Your task to perform on an android device: toggle notifications settings in the gmail app Image 0: 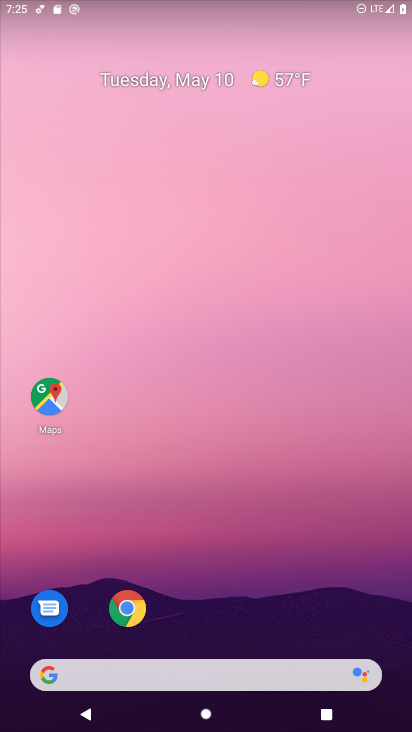
Step 0: drag from (307, 606) to (303, 104)
Your task to perform on an android device: toggle notifications settings in the gmail app Image 1: 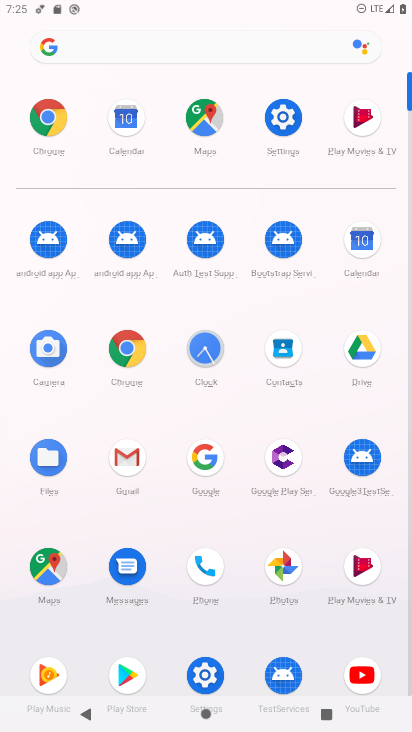
Step 1: click (129, 457)
Your task to perform on an android device: toggle notifications settings in the gmail app Image 2: 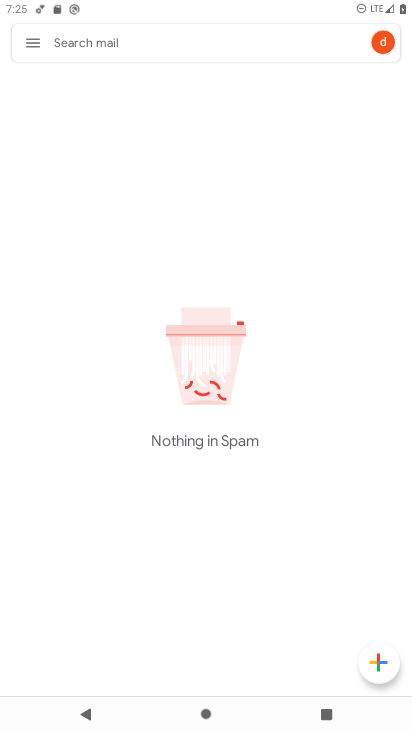
Step 2: click (21, 36)
Your task to perform on an android device: toggle notifications settings in the gmail app Image 3: 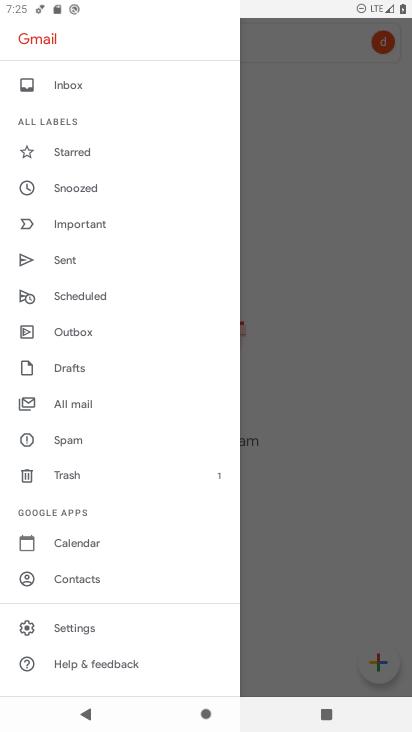
Step 3: click (69, 620)
Your task to perform on an android device: toggle notifications settings in the gmail app Image 4: 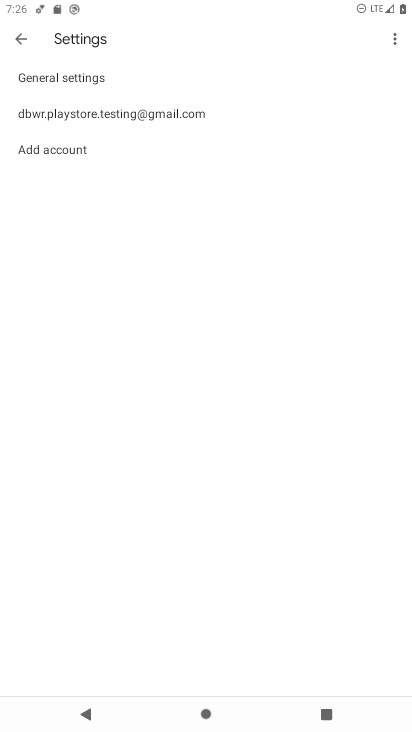
Step 4: click (183, 119)
Your task to perform on an android device: toggle notifications settings in the gmail app Image 5: 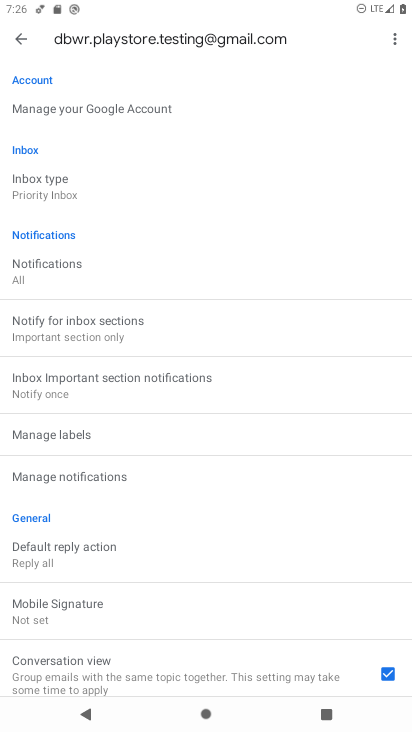
Step 5: click (56, 282)
Your task to perform on an android device: toggle notifications settings in the gmail app Image 6: 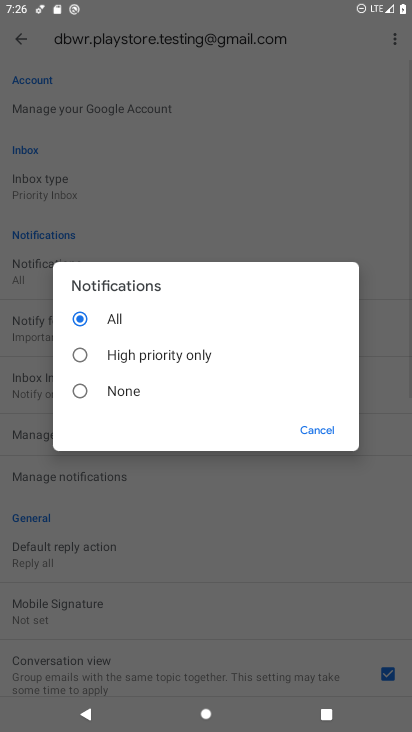
Step 6: click (113, 384)
Your task to perform on an android device: toggle notifications settings in the gmail app Image 7: 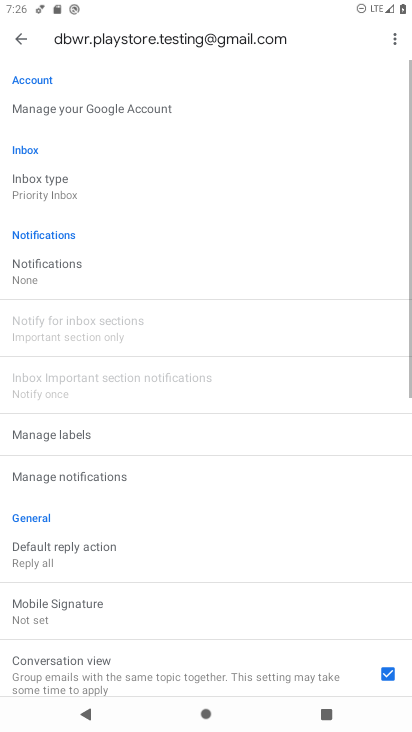
Step 7: task complete